Your task to perform on an android device: Search for Mexican restaurants on Maps Image 0: 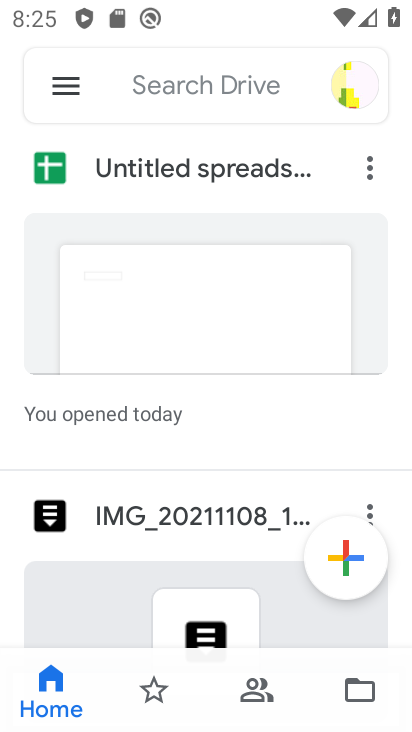
Step 0: drag from (199, 608) to (101, 5)
Your task to perform on an android device: Search for Mexican restaurants on Maps Image 1: 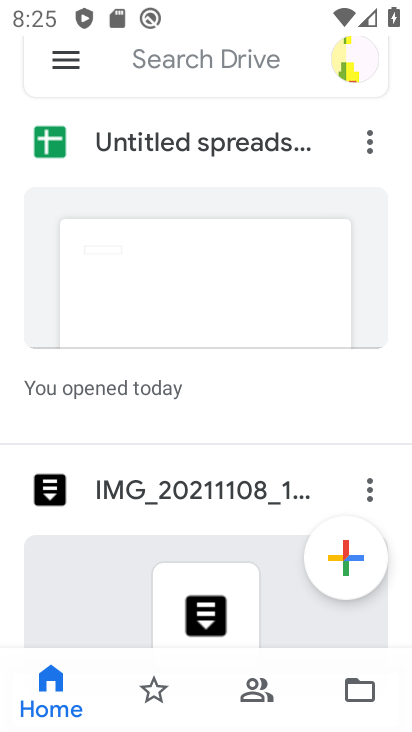
Step 1: drag from (219, 566) to (301, 237)
Your task to perform on an android device: Search for Mexican restaurants on Maps Image 2: 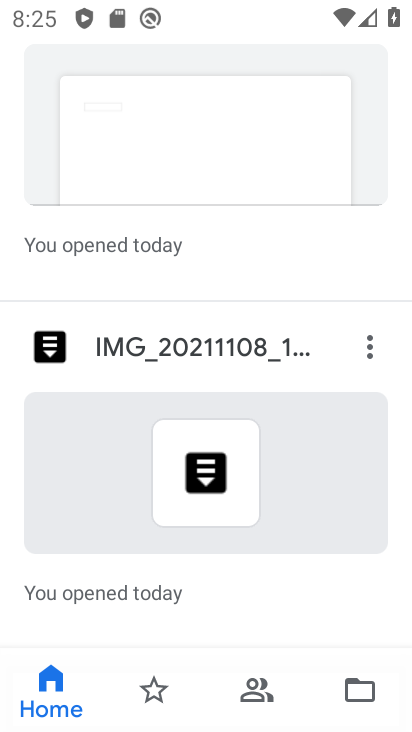
Step 2: press home button
Your task to perform on an android device: Search for Mexican restaurants on Maps Image 3: 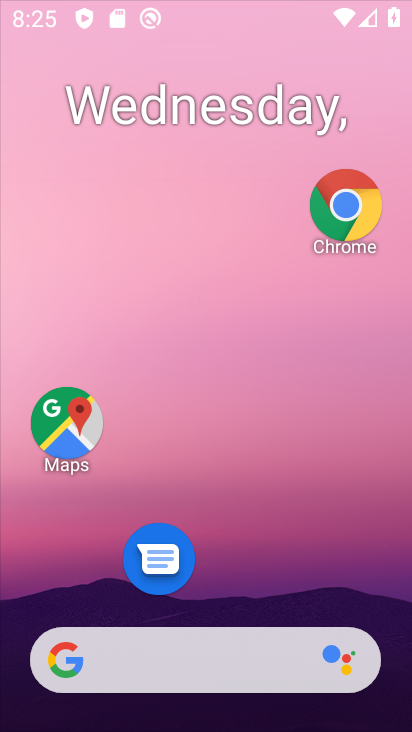
Step 3: drag from (194, 585) to (295, 190)
Your task to perform on an android device: Search for Mexican restaurants on Maps Image 4: 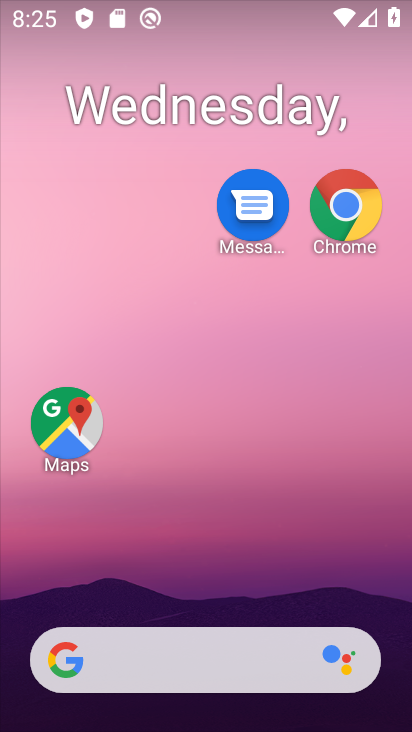
Step 4: drag from (217, 589) to (261, 195)
Your task to perform on an android device: Search for Mexican restaurants on Maps Image 5: 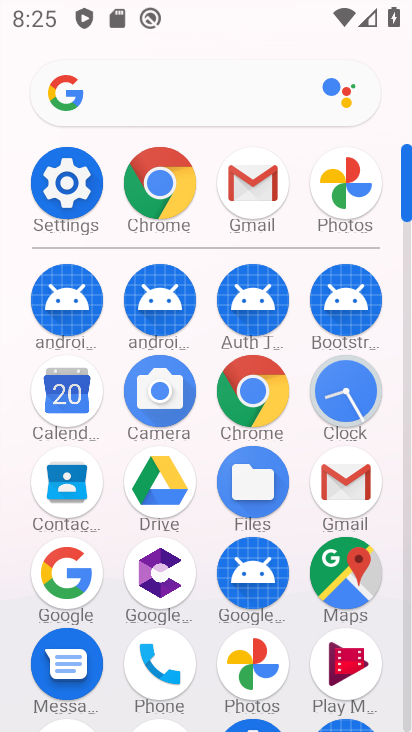
Step 5: click (343, 558)
Your task to perform on an android device: Search for Mexican restaurants on Maps Image 6: 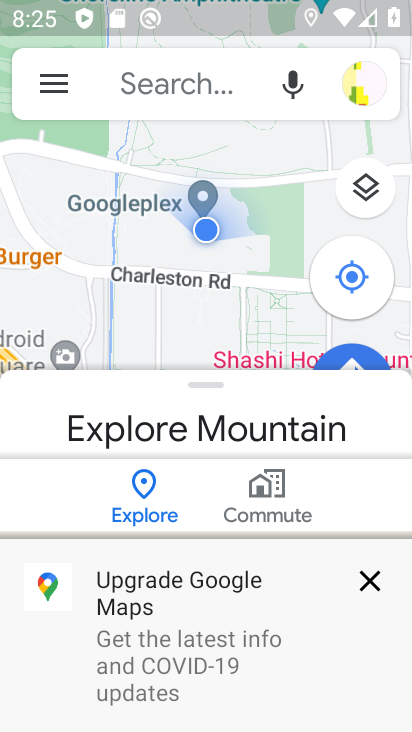
Step 6: click (381, 591)
Your task to perform on an android device: Search for Mexican restaurants on Maps Image 7: 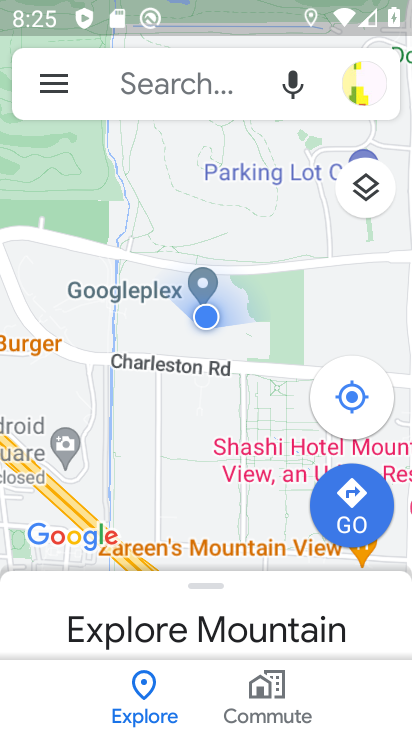
Step 7: drag from (188, 590) to (275, 192)
Your task to perform on an android device: Search for Mexican restaurants on Maps Image 8: 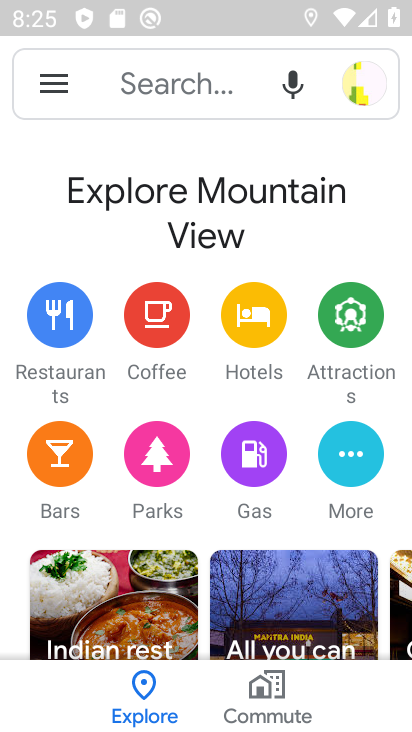
Step 8: click (129, 86)
Your task to perform on an android device: Search for Mexican restaurants on Maps Image 9: 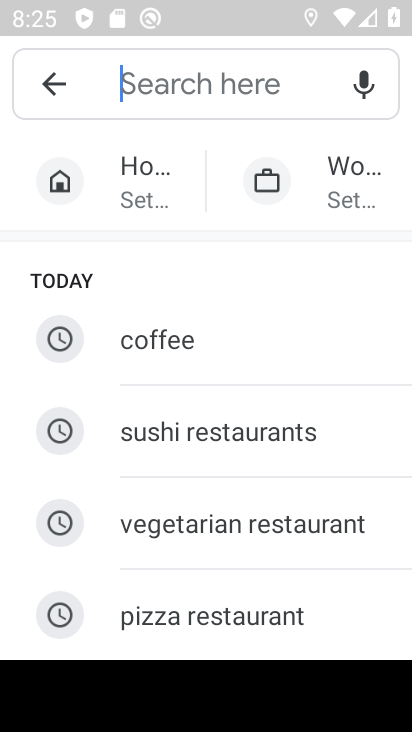
Step 9: drag from (222, 491) to (314, 183)
Your task to perform on an android device: Search for Mexican restaurants on Maps Image 10: 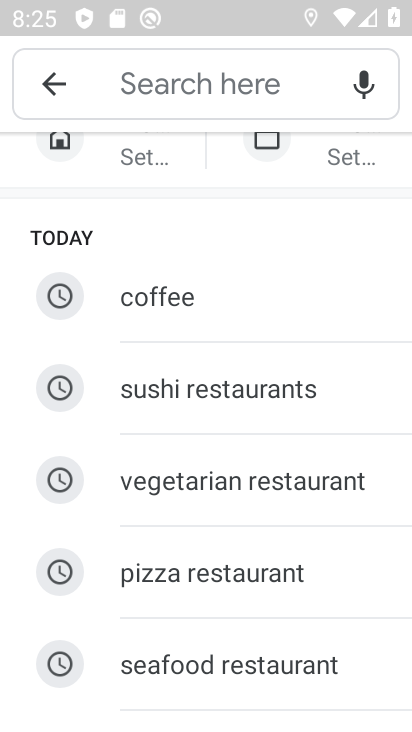
Step 10: drag from (217, 604) to (255, 218)
Your task to perform on an android device: Search for Mexican restaurants on Maps Image 11: 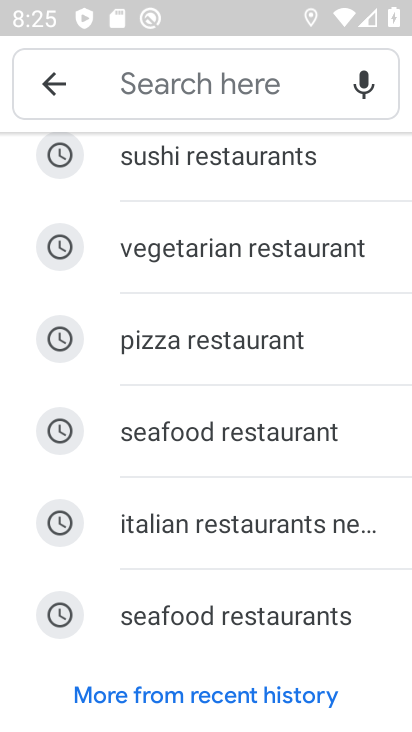
Step 11: click (182, 78)
Your task to perform on an android device: Search for Mexican restaurants on Maps Image 12: 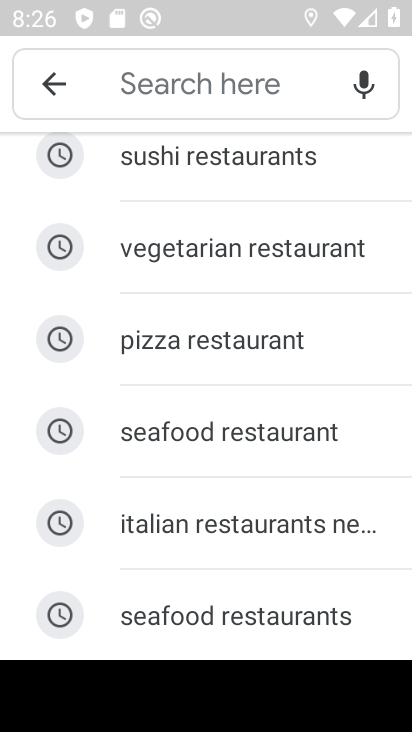
Step 12: type "maxican restaurants"
Your task to perform on an android device: Search for Mexican restaurants on Maps Image 13: 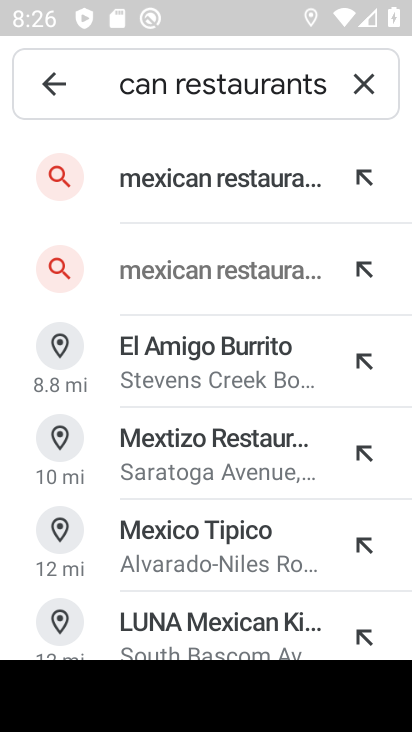
Step 13: click (219, 178)
Your task to perform on an android device: Search for Mexican restaurants on Maps Image 14: 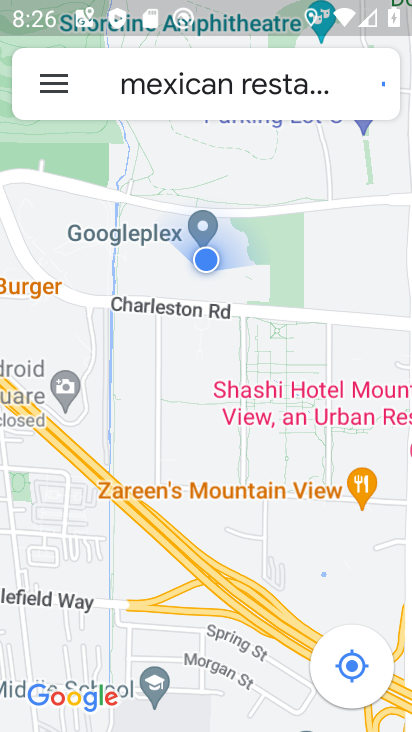
Step 14: task complete